Your task to perform on an android device: Is it going to rain today? Image 0: 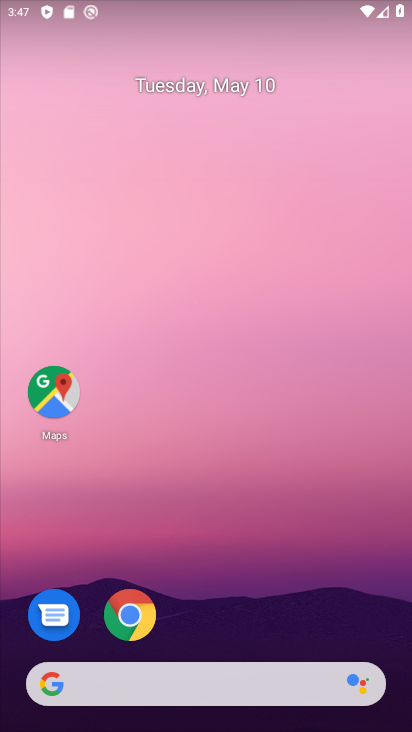
Step 0: click (145, 618)
Your task to perform on an android device: Is it going to rain today? Image 1: 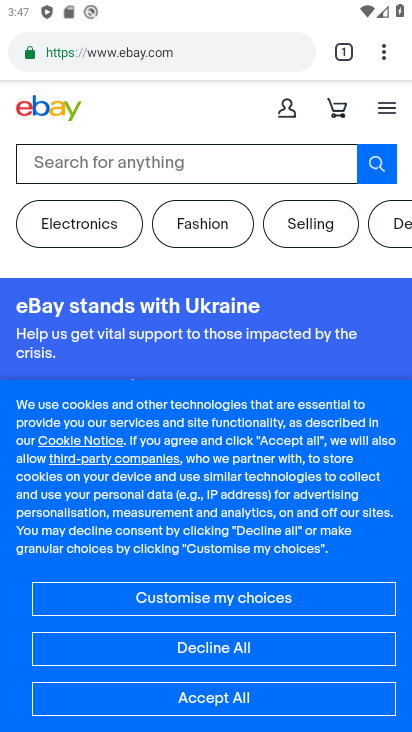
Step 1: click (165, 52)
Your task to perform on an android device: Is it going to rain today? Image 2: 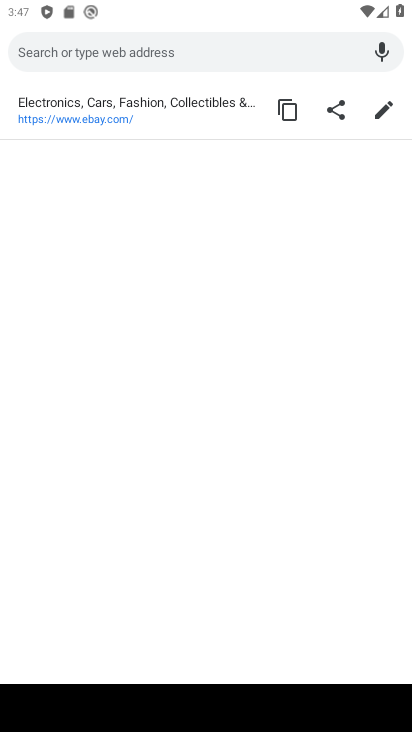
Step 2: type "is it going to rain todsy?"
Your task to perform on an android device: Is it going to rain today? Image 3: 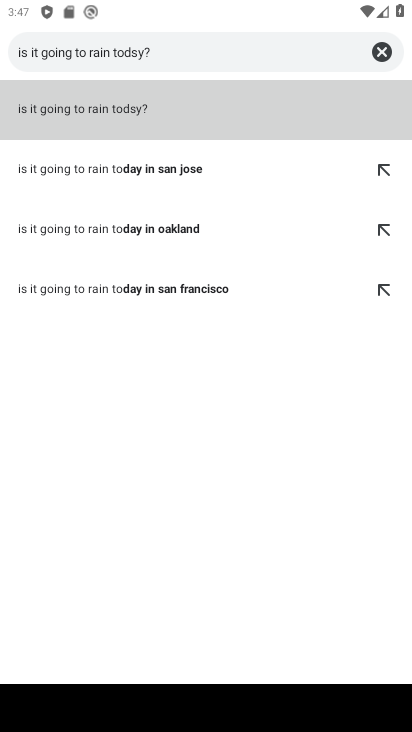
Step 3: click (128, 115)
Your task to perform on an android device: Is it going to rain today? Image 4: 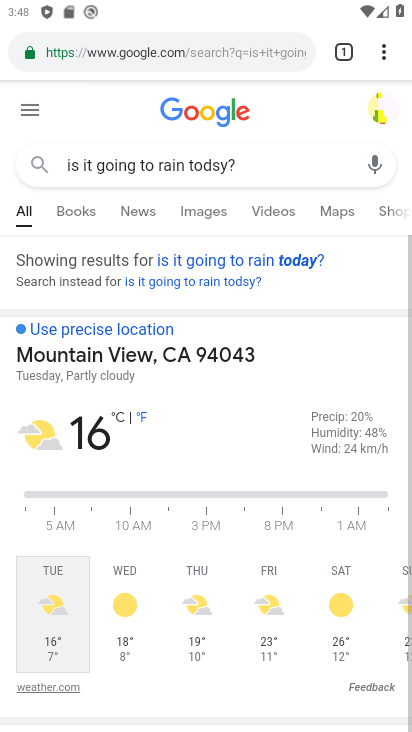
Step 4: click (304, 260)
Your task to perform on an android device: Is it going to rain today? Image 5: 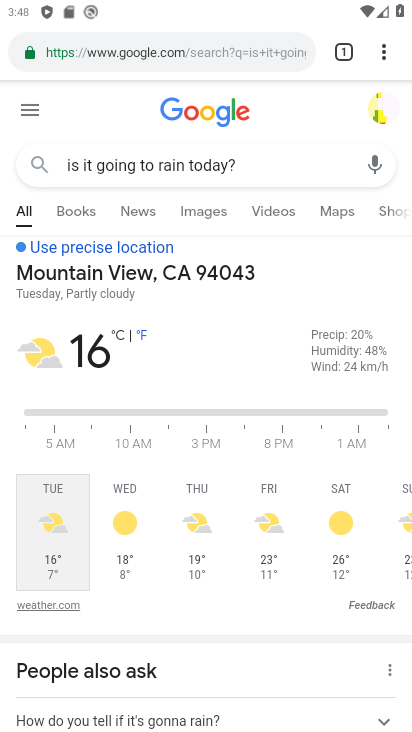
Step 5: task complete